Your task to perform on an android device: Turn off the flashlight Image 0: 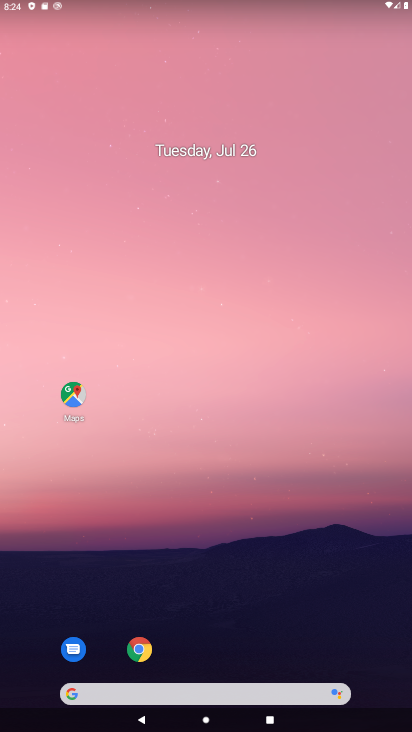
Step 0: drag from (194, 593) to (227, 35)
Your task to perform on an android device: Turn off the flashlight Image 1: 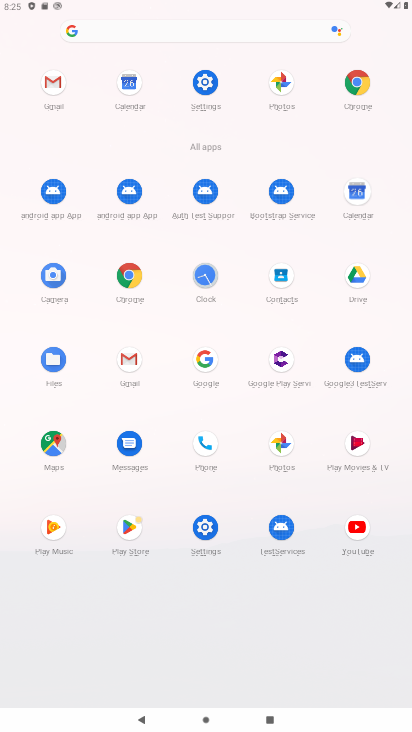
Step 1: click (206, 527)
Your task to perform on an android device: Turn off the flashlight Image 2: 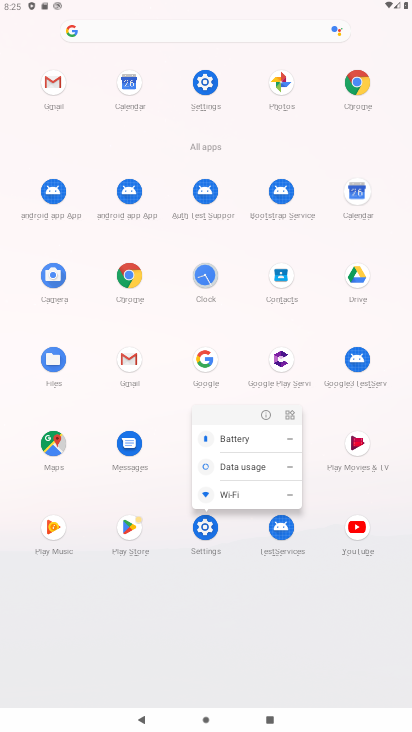
Step 2: click (265, 418)
Your task to perform on an android device: Turn off the flashlight Image 3: 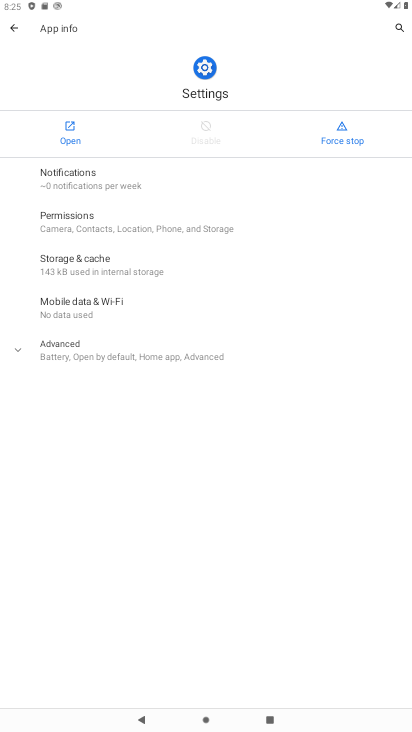
Step 3: click (61, 125)
Your task to perform on an android device: Turn off the flashlight Image 4: 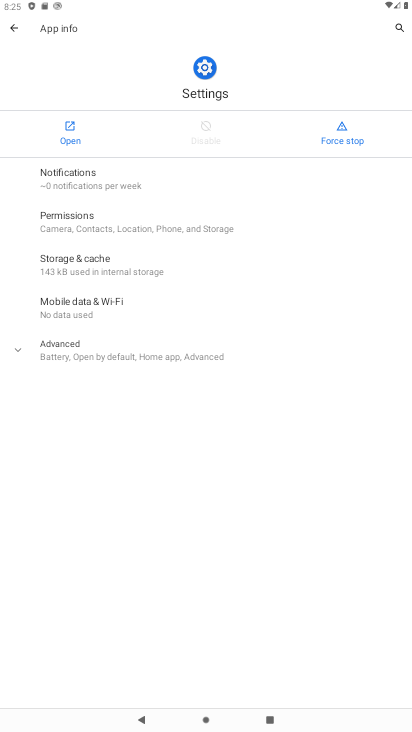
Step 4: click (62, 125)
Your task to perform on an android device: Turn off the flashlight Image 5: 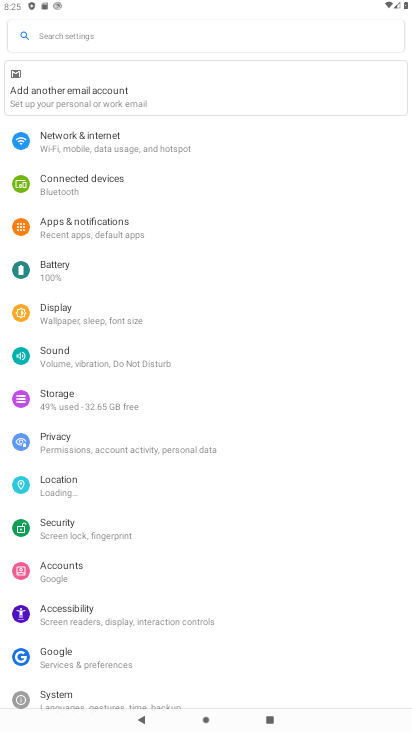
Step 5: click (99, 28)
Your task to perform on an android device: Turn off the flashlight Image 6: 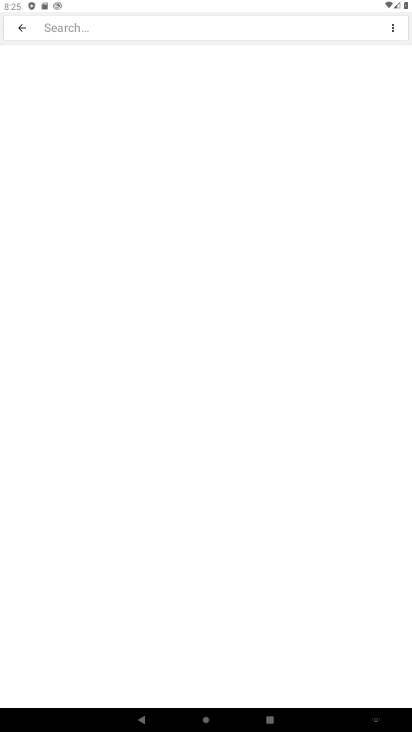
Step 6: type "flashlight"
Your task to perform on an android device: Turn off the flashlight Image 7: 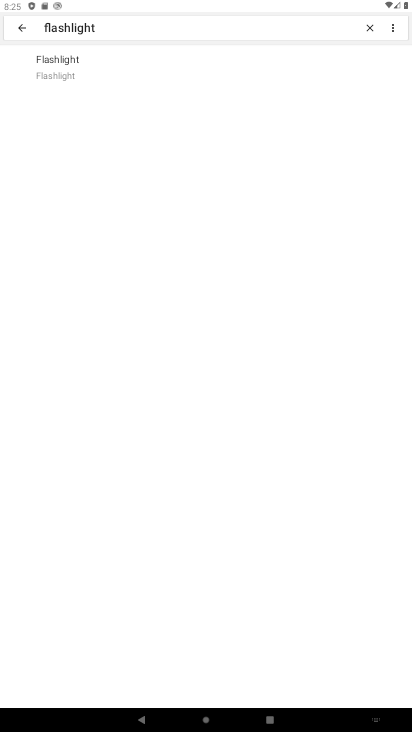
Step 7: click (99, 60)
Your task to perform on an android device: Turn off the flashlight Image 8: 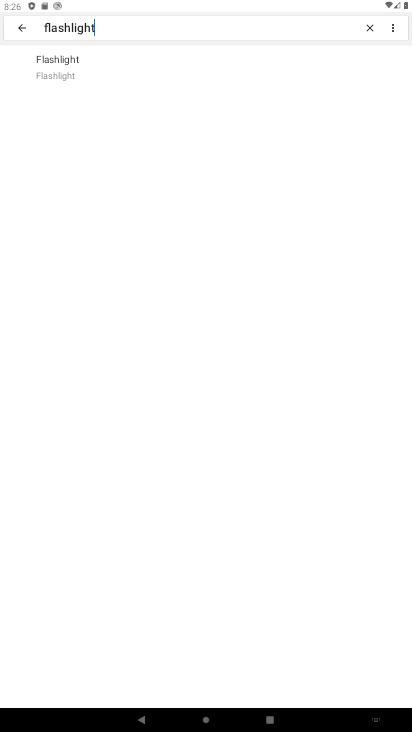
Step 8: click (164, 70)
Your task to perform on an android device: Turn off the flashlight Image 9: 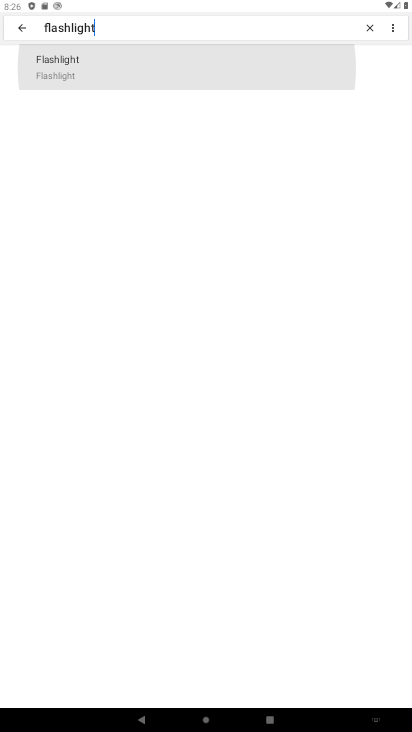
Step 9: click (164, 70)
Your task to perform on an android device: Turn off the flashlight Image 10: 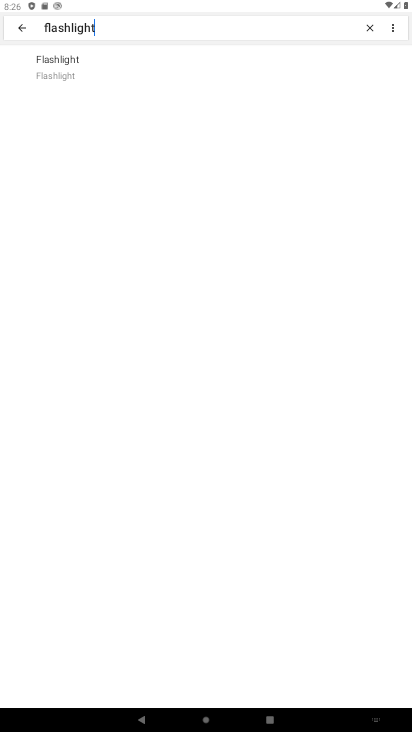
Step 10: task complete